Your task to perform on an android device: Is it going to rain today? Image 0: 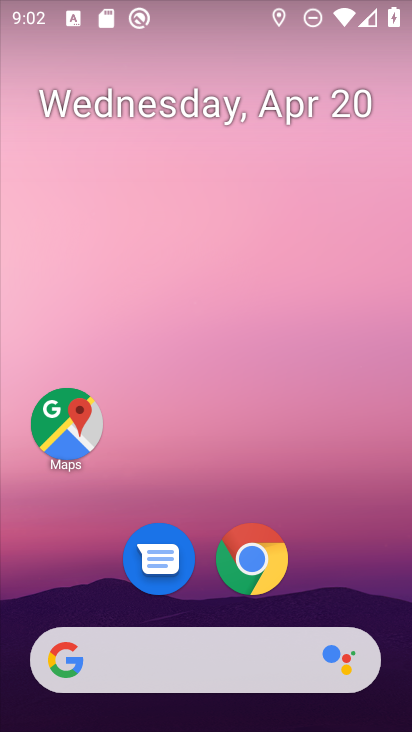
Step 0: drag from (10, 157) to (411, 161)
Your task to perform on an android device: Is it going to rain today? Image 1: 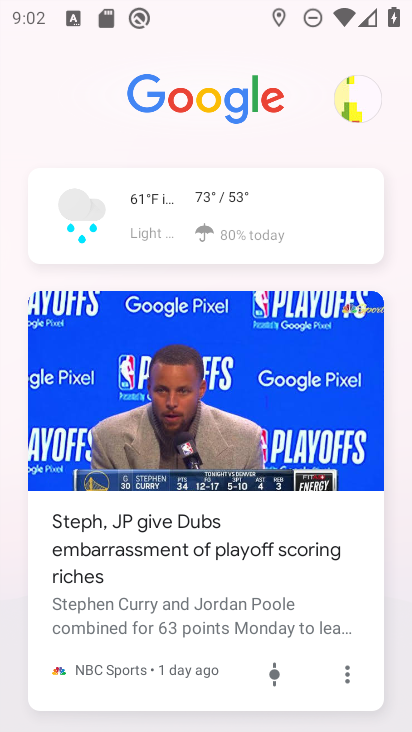
Step 1: click (275, 196)
Your task to perform on an android device: Is it going to rain today? Image 2: 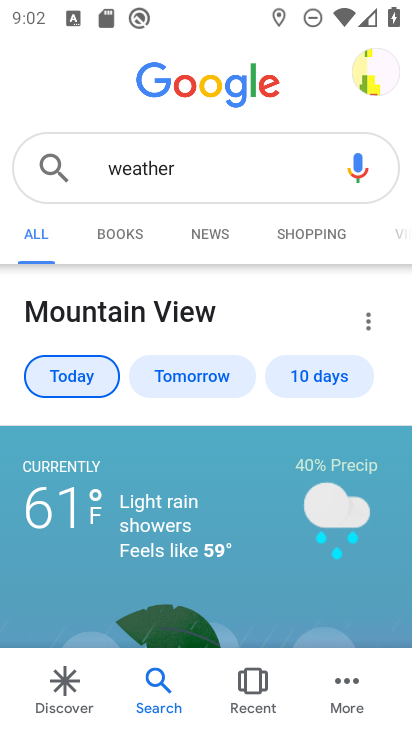
Step 2: task complete